Your task to perform on an android device: Open Google Chrome and open the bookmarks view Image 0: 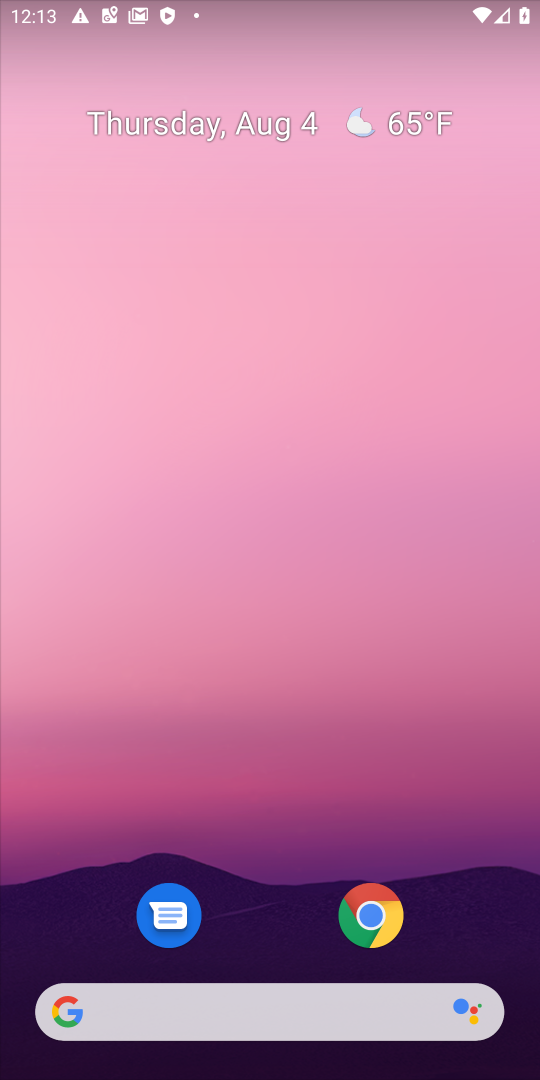
Step 0: click (371, 926)
Your task to perform on an android device: Open Google Chrome and open the bookmarks view Image 1: 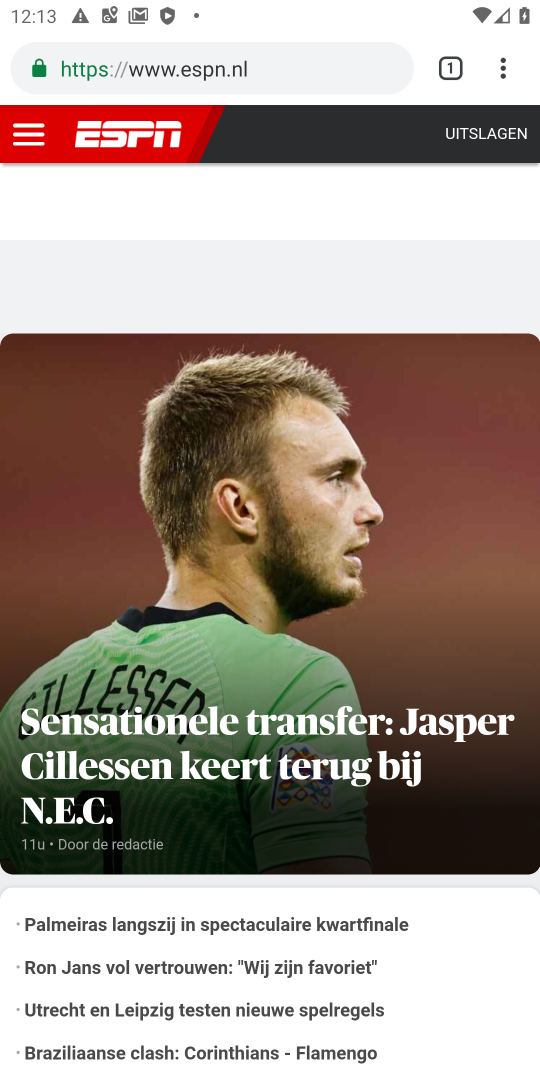
Step 1: click (501, 72)
Your task to perform on an android device: Open Google Chrome and open the bookmarks view Image 2: 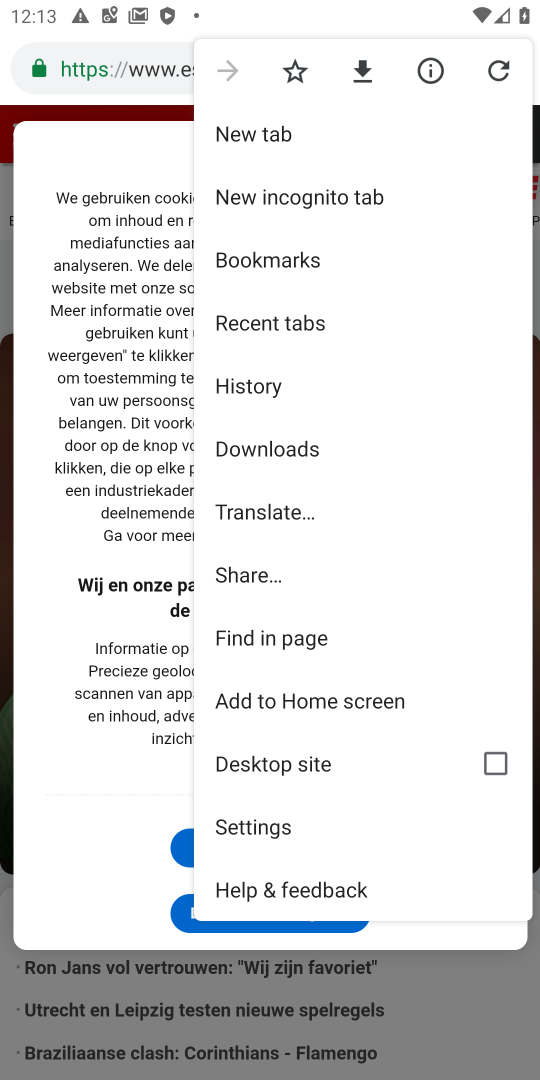
Step 2: click (267, 261)
Your task to perform on an android device: Open Google Chrome and open the bookmarks view Image 3: 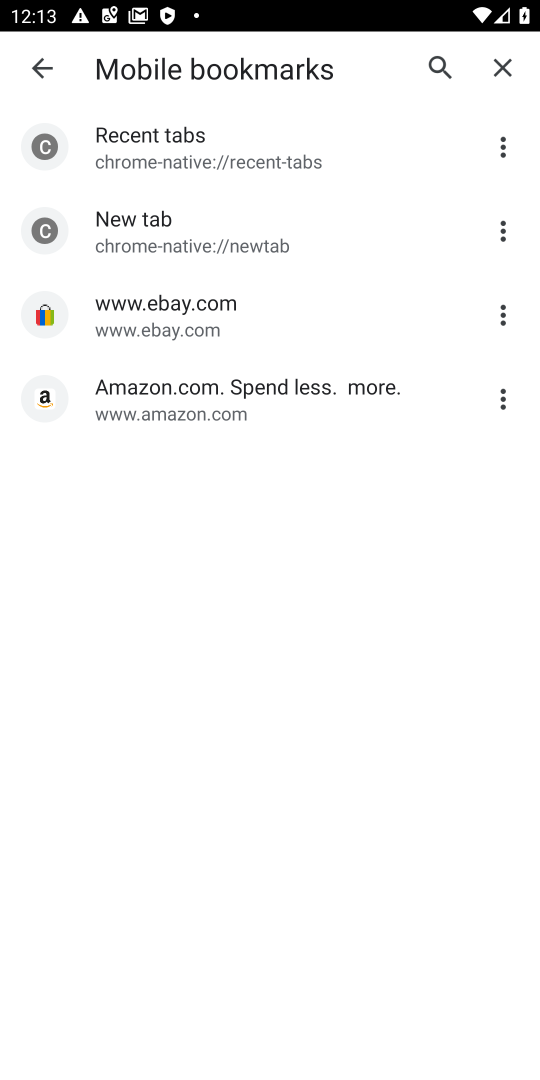
Step 3: task complete